Your task to perform on an android device: turn vacation reply on in the gmail app Image 0: 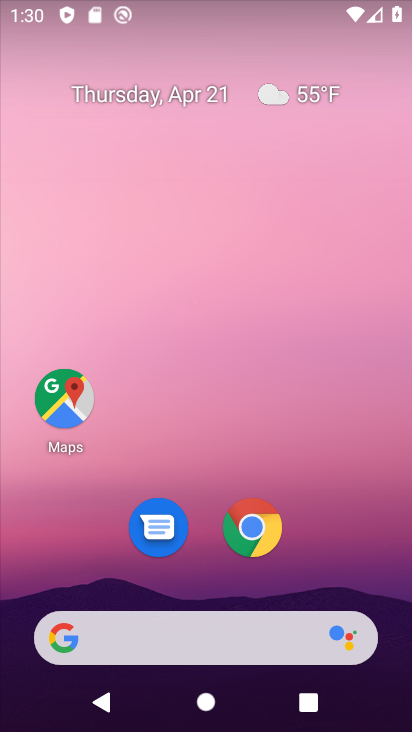
Step 0: drag from (348, 559) to (361, 82)
Your task to perform on an android device: turn vacation reply on in the gmail app Image 1: 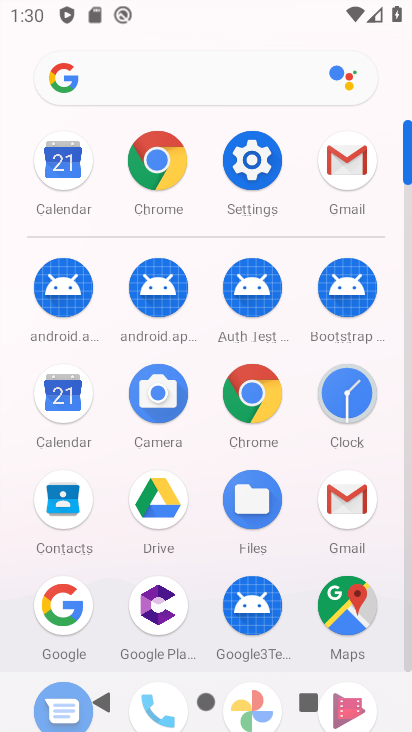
Step 1: click (354, 509)
Your task to perform on an android device: turn vacation reply on in the gmail app Image 2: 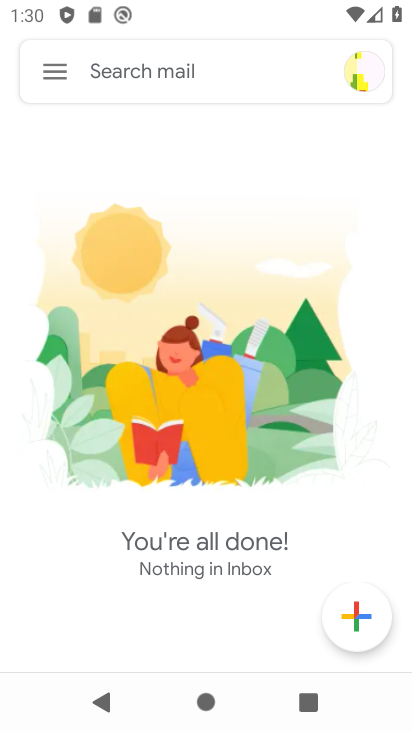
Step 2: click (53, 69)
Your task to perform on an android device: turn vacation reply on in the gmail app Image 3: 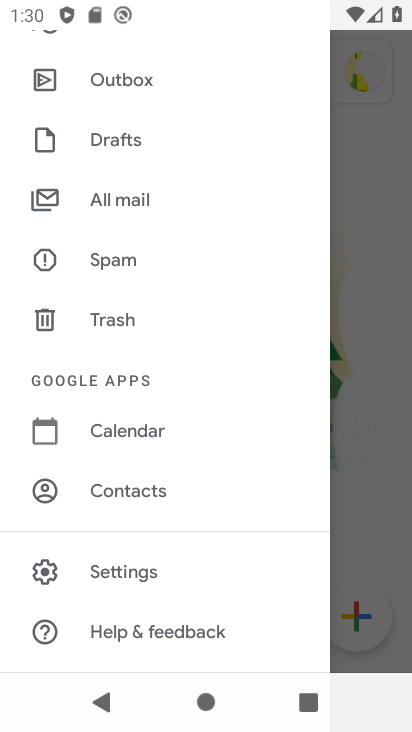
Step 3: drag from (261, 236) to (256, 437)
Your task to perform on an android device: turn vacation reply on in the gmail app Image 4: 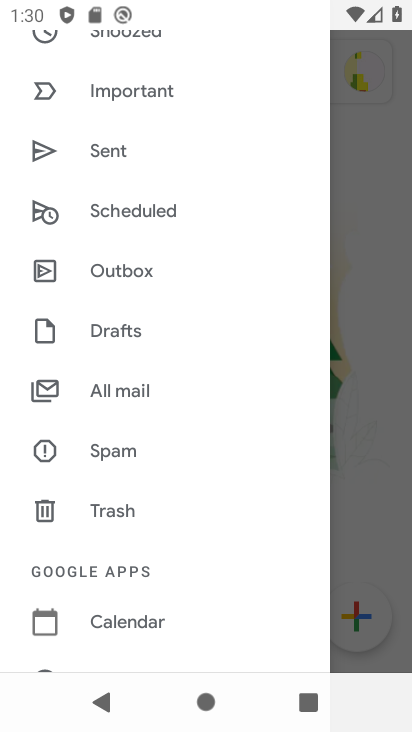
Step 4: drag from (265, 220) to (267, 425)
Your task to perform on an android device: turn vacation reply on in the gmail app Image 5: 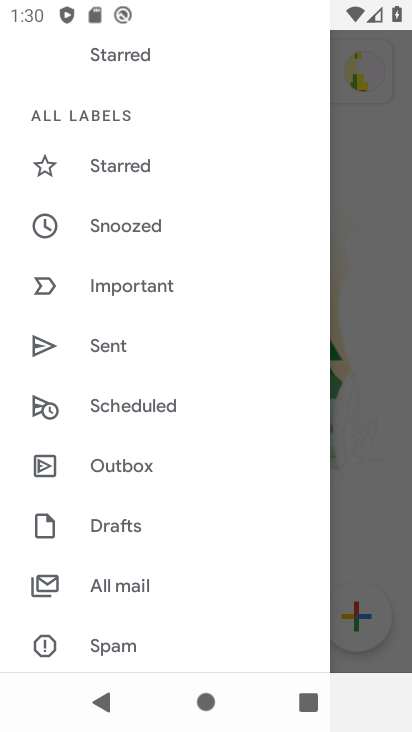
Step 5: drag from (262, 177) to (262, 412)
Your task to perform on an android device: turn vacation reply on in the gmail app Image 6: 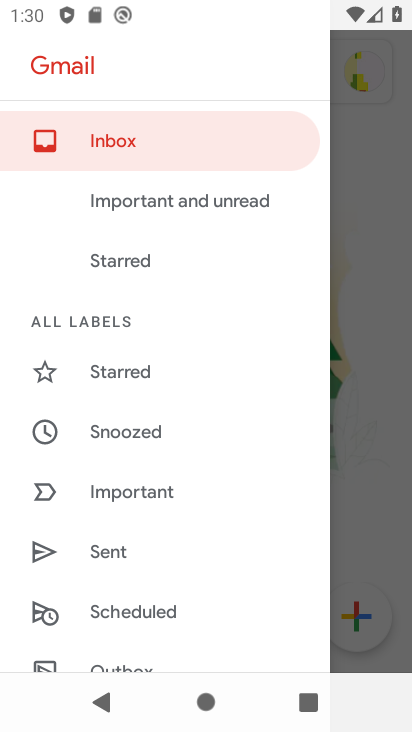
Step 6: drag from (257, 451) to (291, 252)
Your task to perform on an android device: turn vacation reply on in the gmail app Image 7: 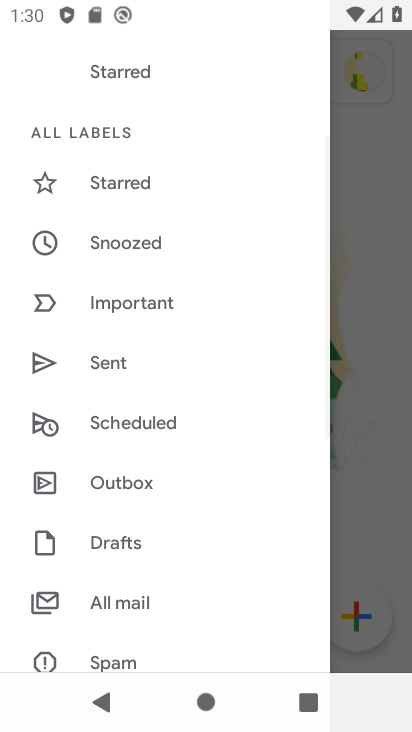
Step 7: drag from (289, 481) to (289, 313)
Your task to perform on an android device: turn vacation reply on in the gmail app Image 8: 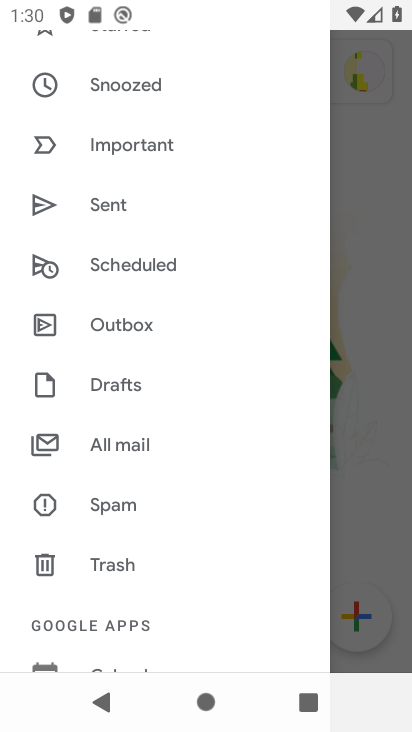
Step 8: drag from (262, 529) to (279, 305)
Your task to perform on an android device: turn vacation reply on in the gmail app Image 9: 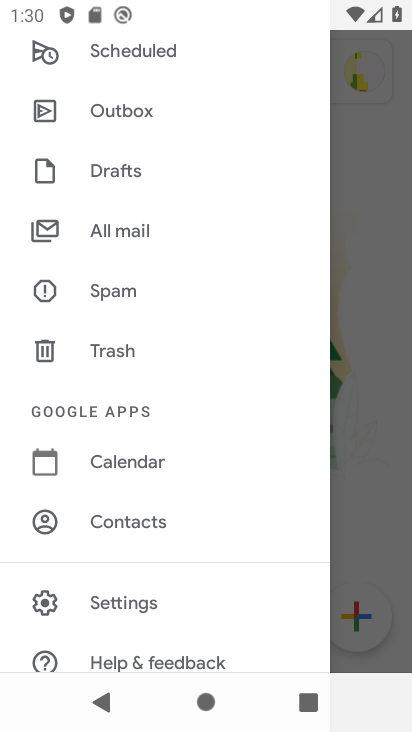
Step 9: drag from (237, 577) to (247, 293)
Your task to perform on an android device: turn vacation reply on in the gmail app Image 10: 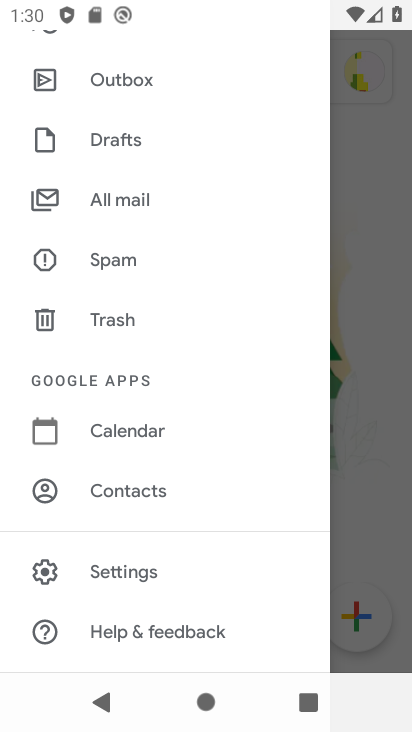
Step 10: click (154, 578)
Your task to perform on an android device: turn vacation reply on in the gmail app Image 11: 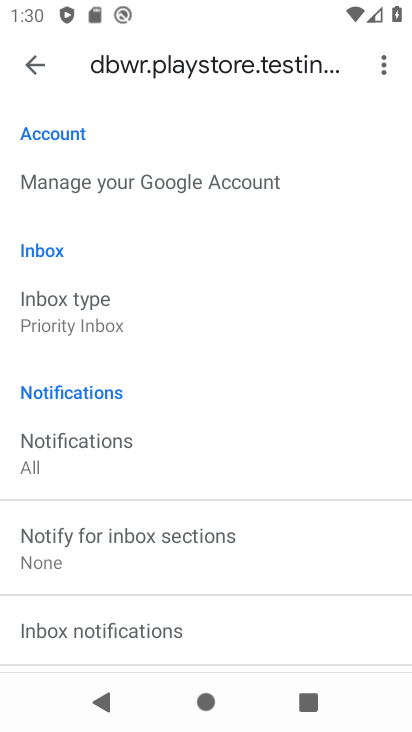
Step 11: drag from (271, 588) to (305, 382)
Your task to perform on an android device: turn vacation reply on in the gmail app Image 12: 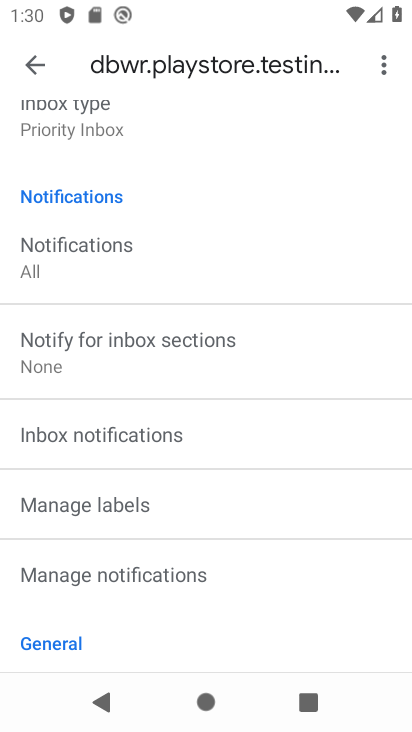
Step 12: drag from (321, 539) to (327, 354)
Your task to perform on an android device: turn vacation reply on in the gmail app Image 13: 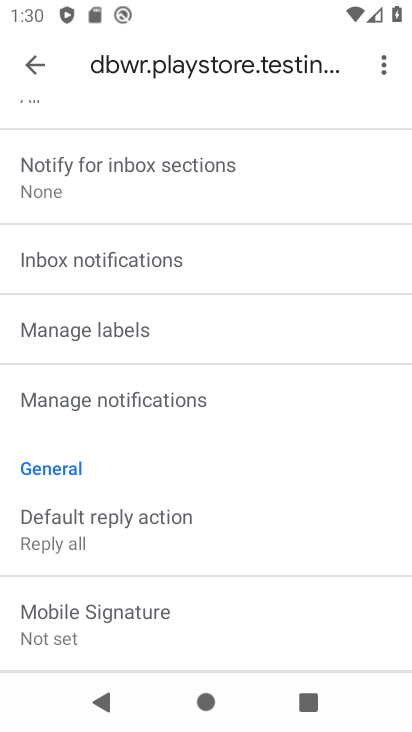
Step 13: drag from (315, 597) to (344, 332)
Your task to perform on an android device: turn vacation reply on in the gmail app Image 14: 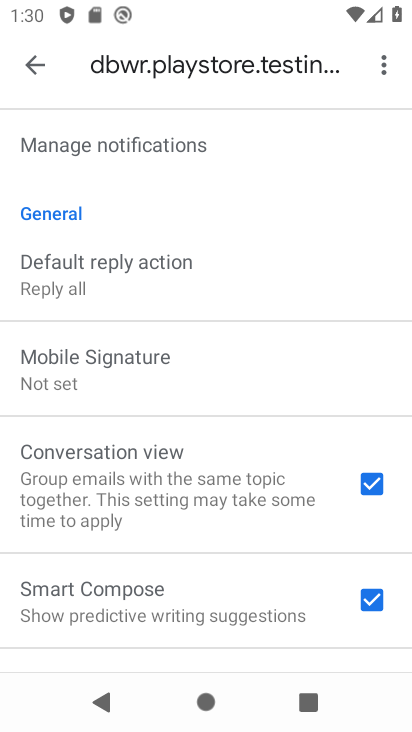
Step 14: drag from (323, 587) to (338, 350)
Your task to perform on an android device: turn vacation reply on in the gmail app Image 15: 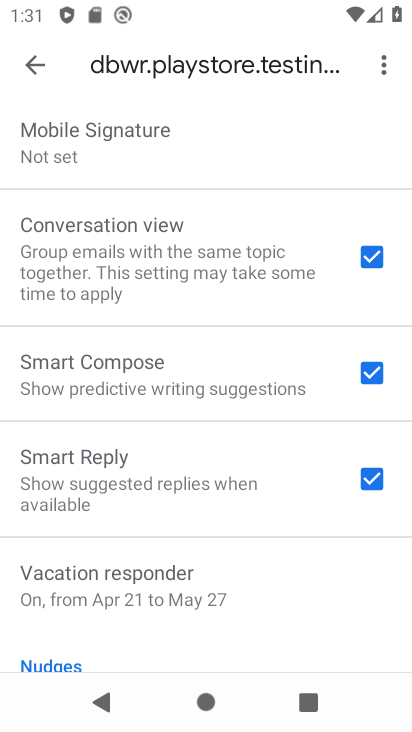
Step 15: drag from (313, 581) to (300, 321)
Your task to perform on an android device: turn vacation reply on in the gmail app Image 16: 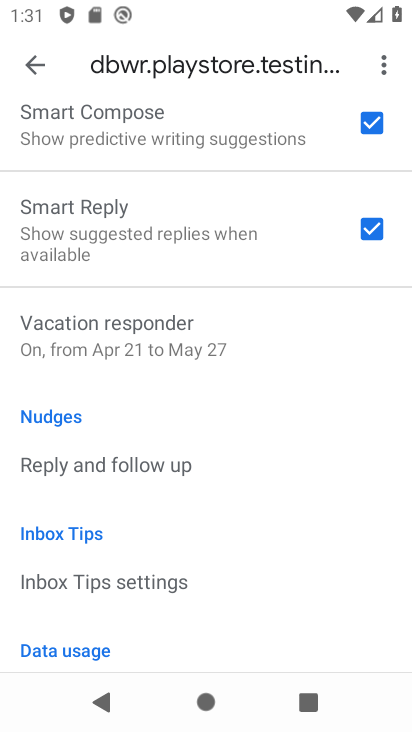
Step 16: click (178, 335)
Your task to perform on an android device: turn vacation reply on in the gmail app Image 17: 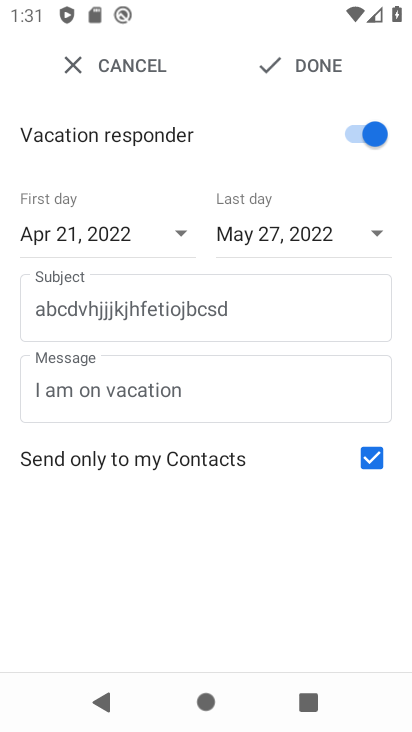
Step 17: task complete